Your task to perform on an android device: change alarm snooze length Image 0: 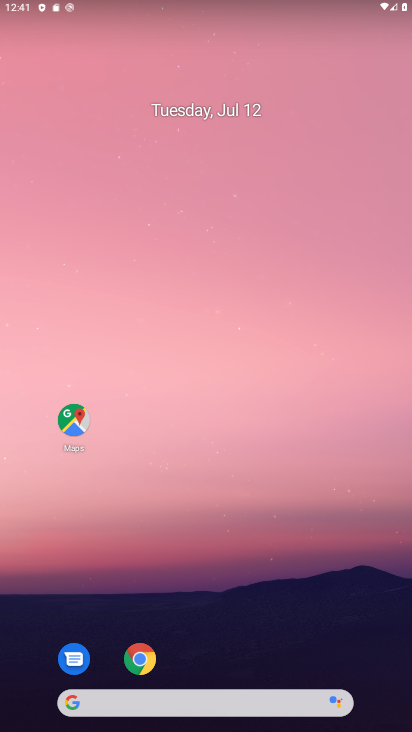
Step 0: drag from (220, 613) to (16, 22)
Your task to perform on an android device: change alarm snooze length Image 1: 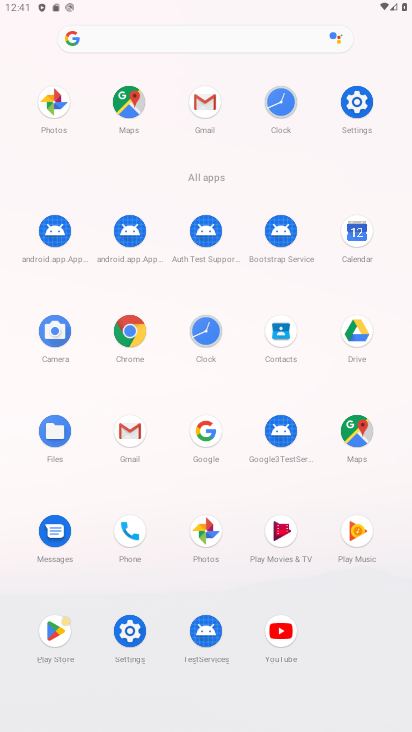
Step 1: click (212, 325)
Your task to perform on an android device: change alarm snooze length Image 2: 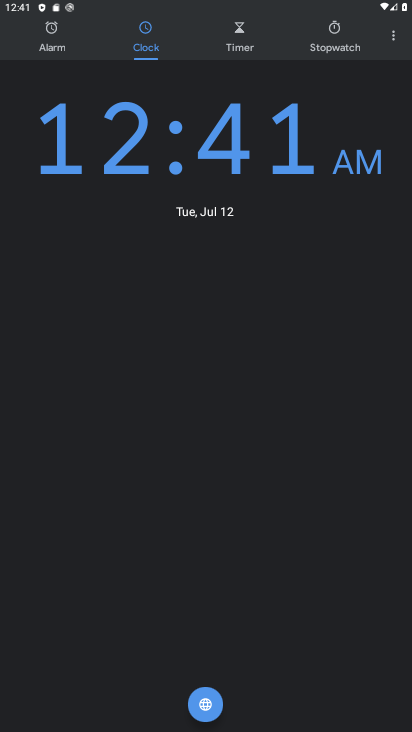
Step 2: drag from (323, 604) to (399, 362)
Your task to perform on an android device: change alarm snooze length Image 3: 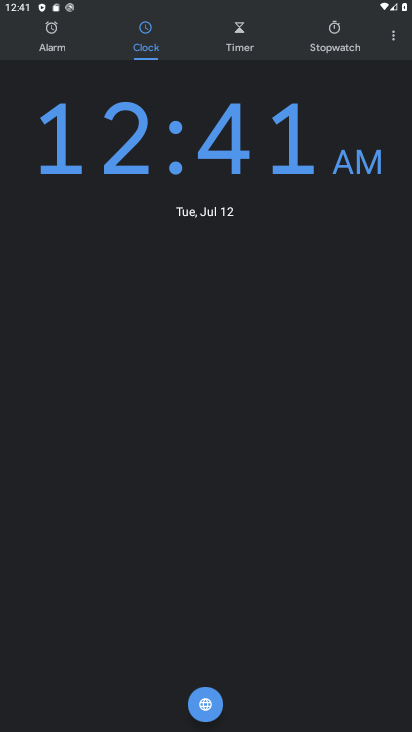
Step 3: click (386, 51)
Your task to perform on an android device: change alarm snooze length Image 4: 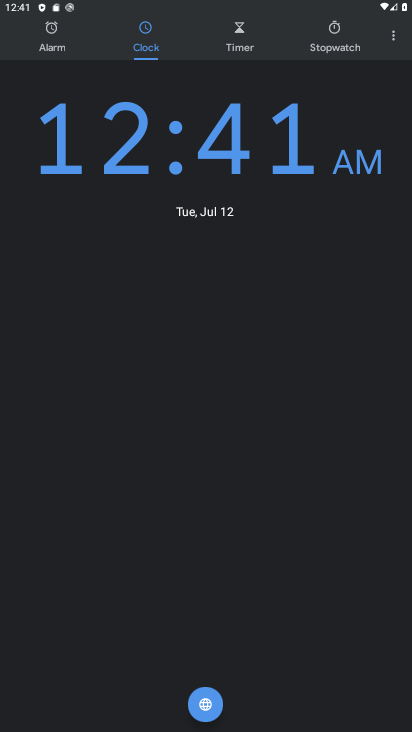
Step 4: click (399, 30)
Your task to perform on an android device: change alarm snooze length Image 5: 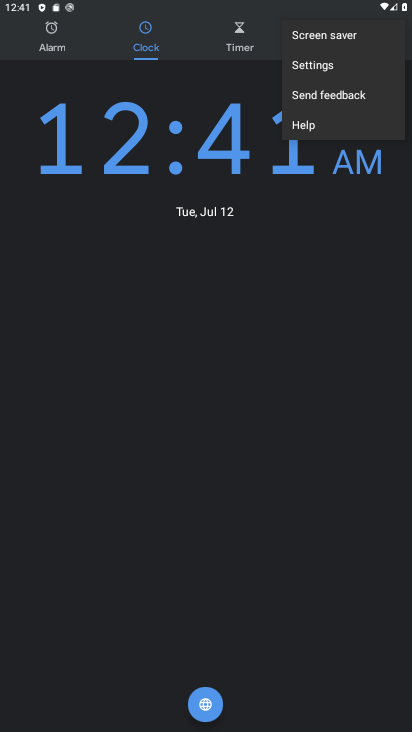
Step 5: click (393, 32)
Your task to perform on an android device: change alarm snooze length Image 6: 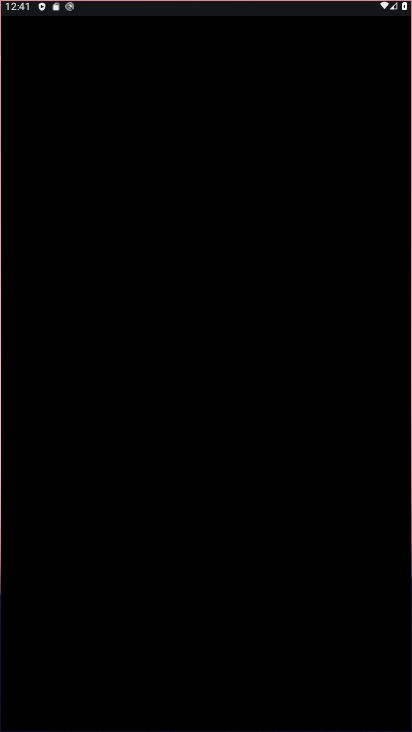
Step 6: click (328, 62)
Your task to perform on an android device: change alarm snooze length Image 7: 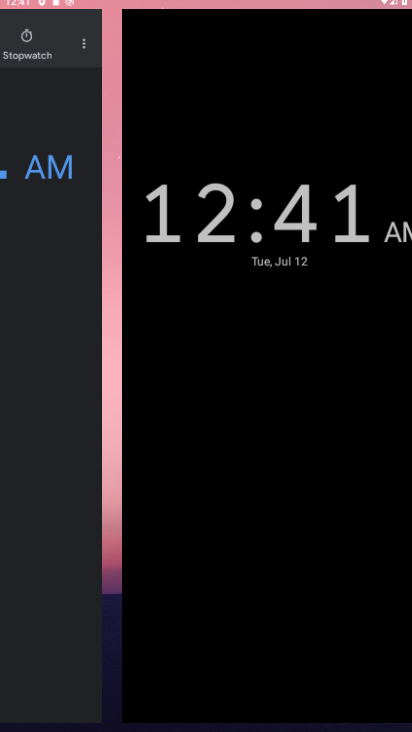
Step 7: click (55, 201)
Your task to perform on an android device: change alarm snooze length Image 8: 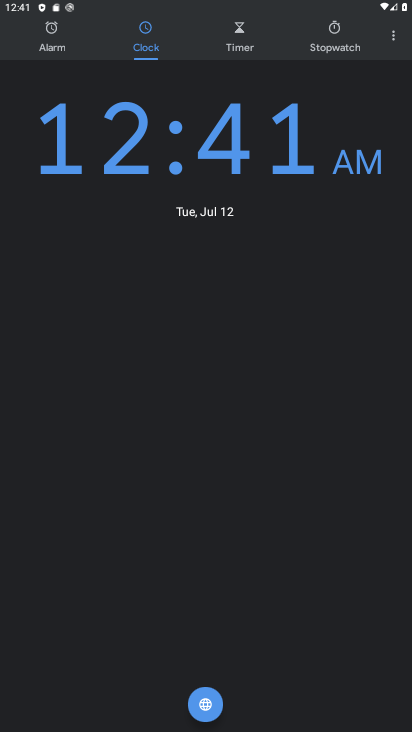
Step 8: click (381, 41)
Your task to perform on an android device: change alarm snooze length Image 9: 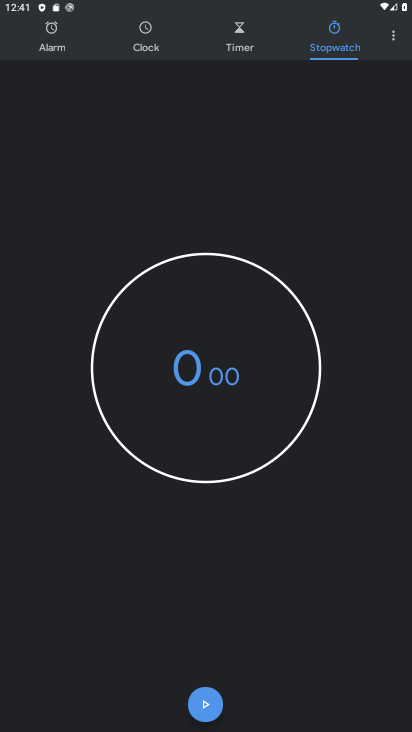
Step 9: click (386, 39)
Your task to perform on an android device: change alarm snooze length Image 10: 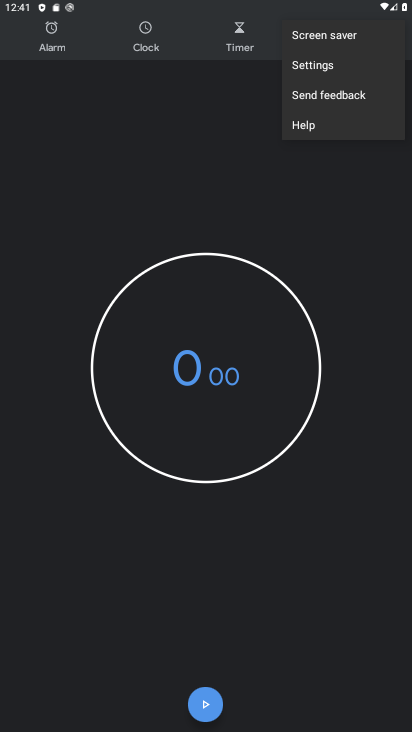
Step 10: click (334, 65)
Your task to perform on an android device: change alarm snooze length Image 11: 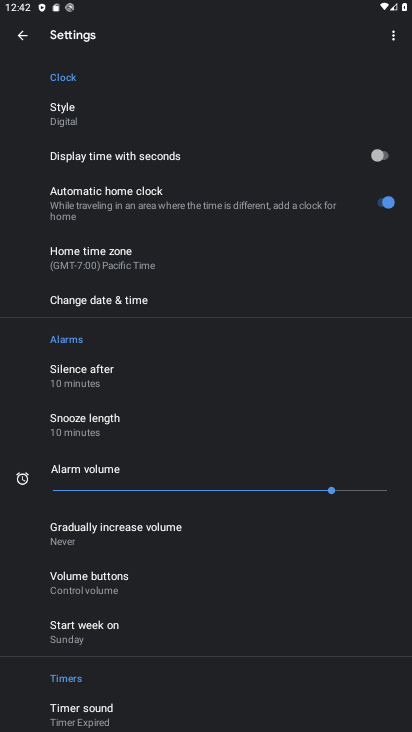
Step 11: drag from (227, 516) to (284, 105)
Your task to perform on an android device: change alarm snooze length Image 12: 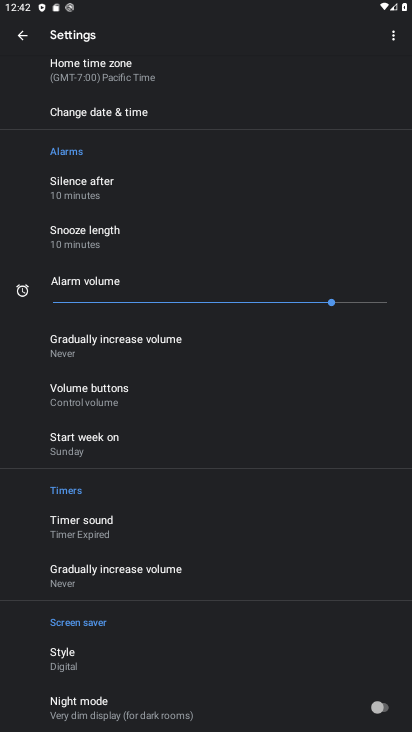
Step 12: click (111, 226)
Your task to perform on an android device: change alarm snooze length Image 13: 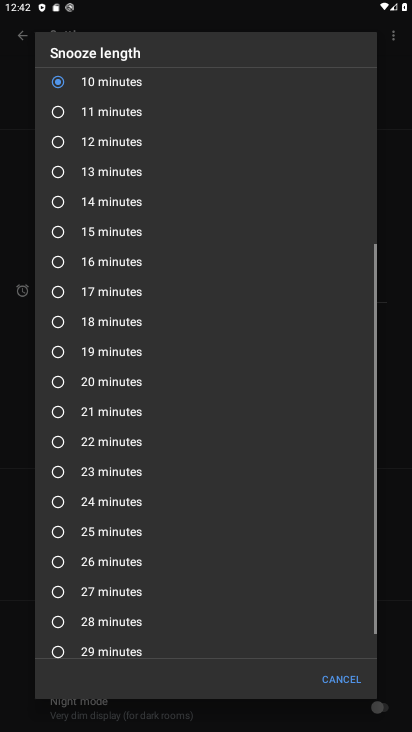
Step 13: click (109, 219)
Your task to perform on an android device: change alarm snooze length Image 14: 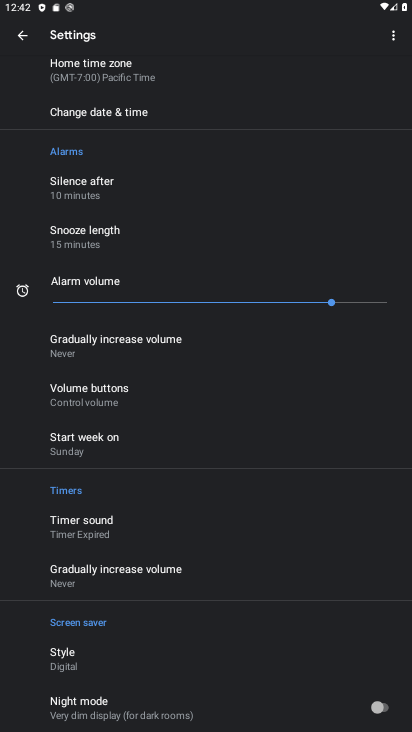
Step 14: task complete